Your task to perform on an android device: Go to Yahoo.com Image 0: 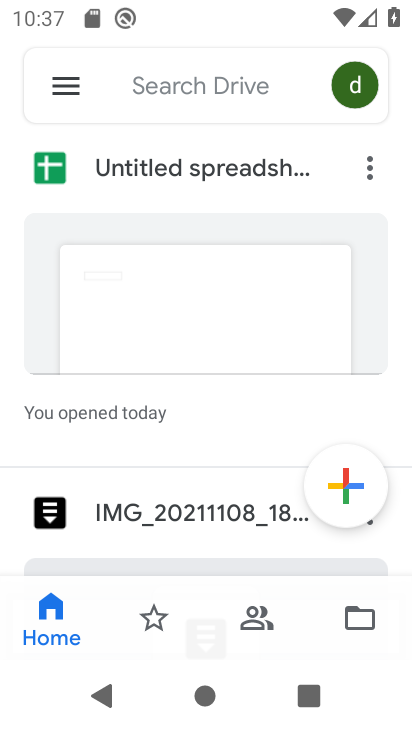
Step 0: press home button
Your task to perform on an android device: Go to Yahoo.com Image 1: 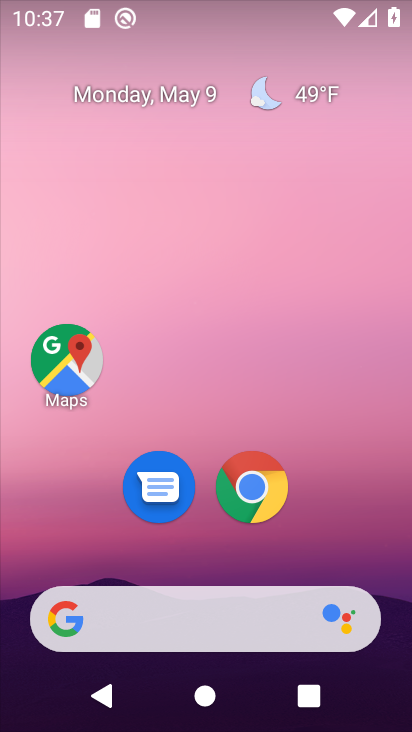
Step 1: click (250, 485)
Your task to perform on an android device: Go to Yahoo.com Image 2: 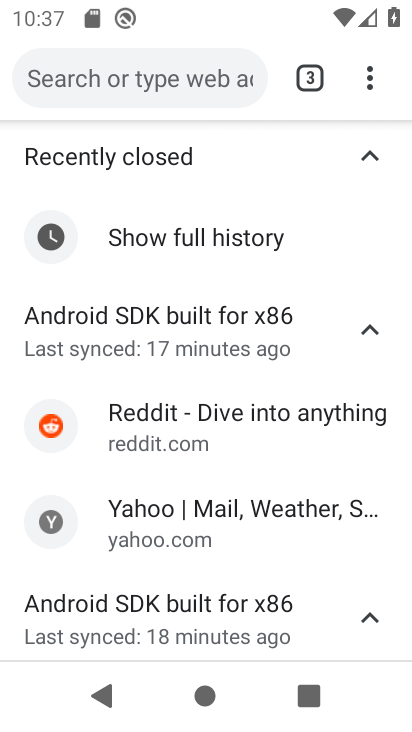
Step 2: click (306, 84)
Your task to perform on an android device: Go to Yahoo.com Image 3: 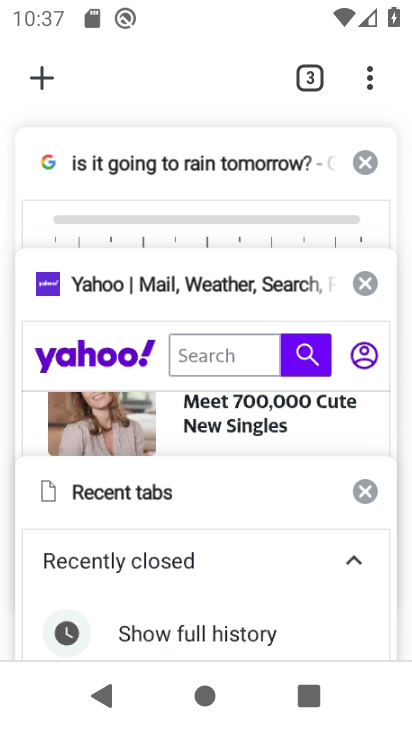
Step 3: click (107, 339)
Your task to perform on an android device: Go to Yahoo.com Image 4: 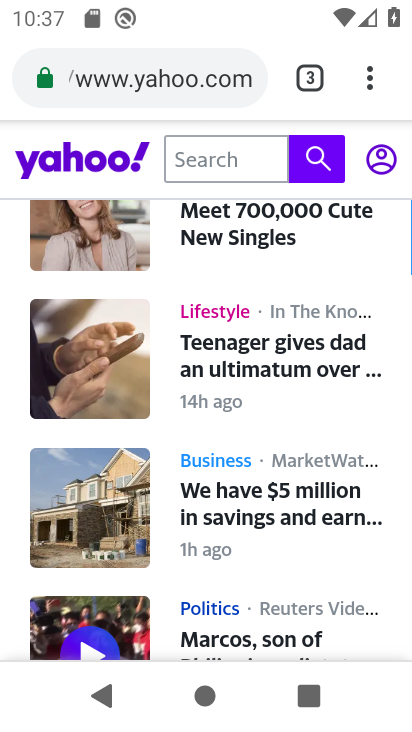
Step 4: task complete